Your task to perform on an android device: Search for hotels in Philadelphia Image 0: 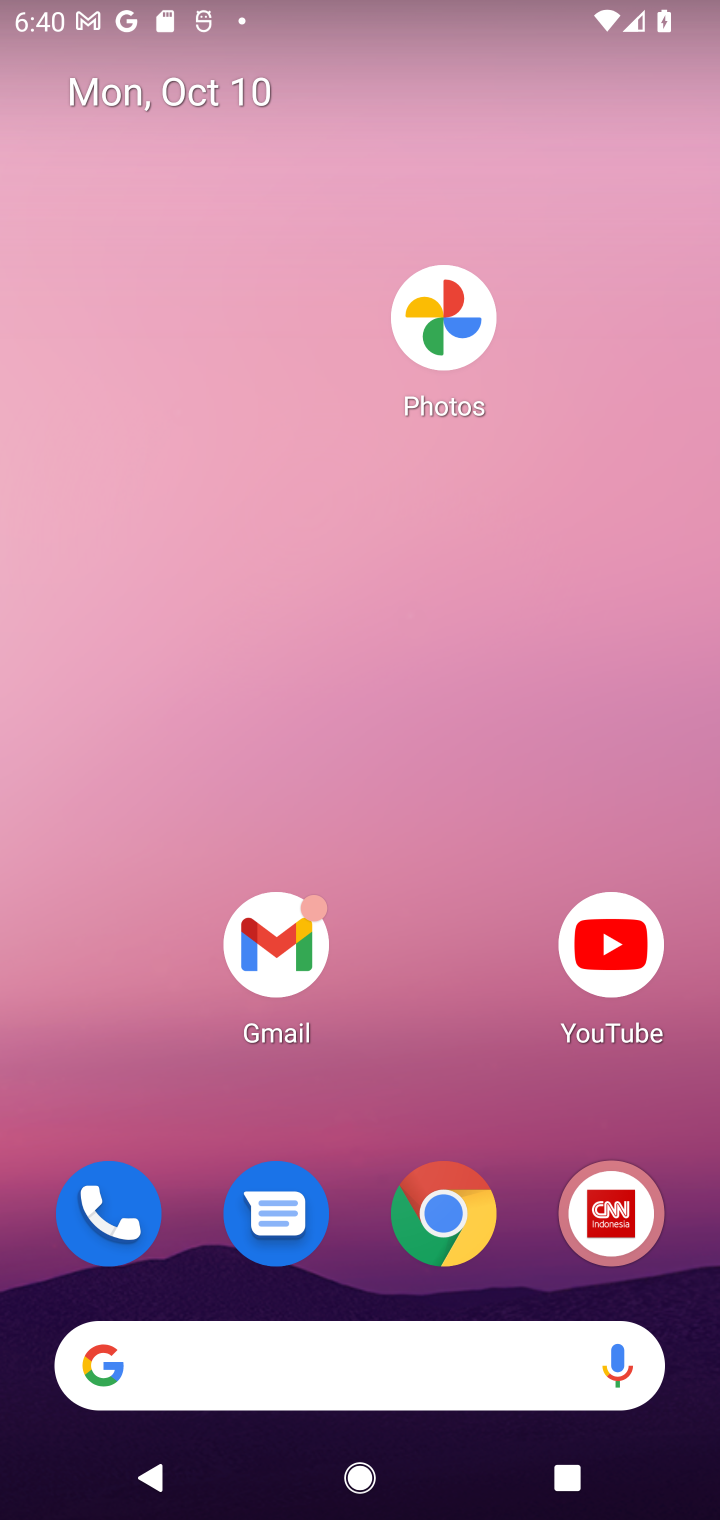
Step 0: click (407, 1351)
Your task to perform on an android device: Search for hotels in Philadelphia Image 1: 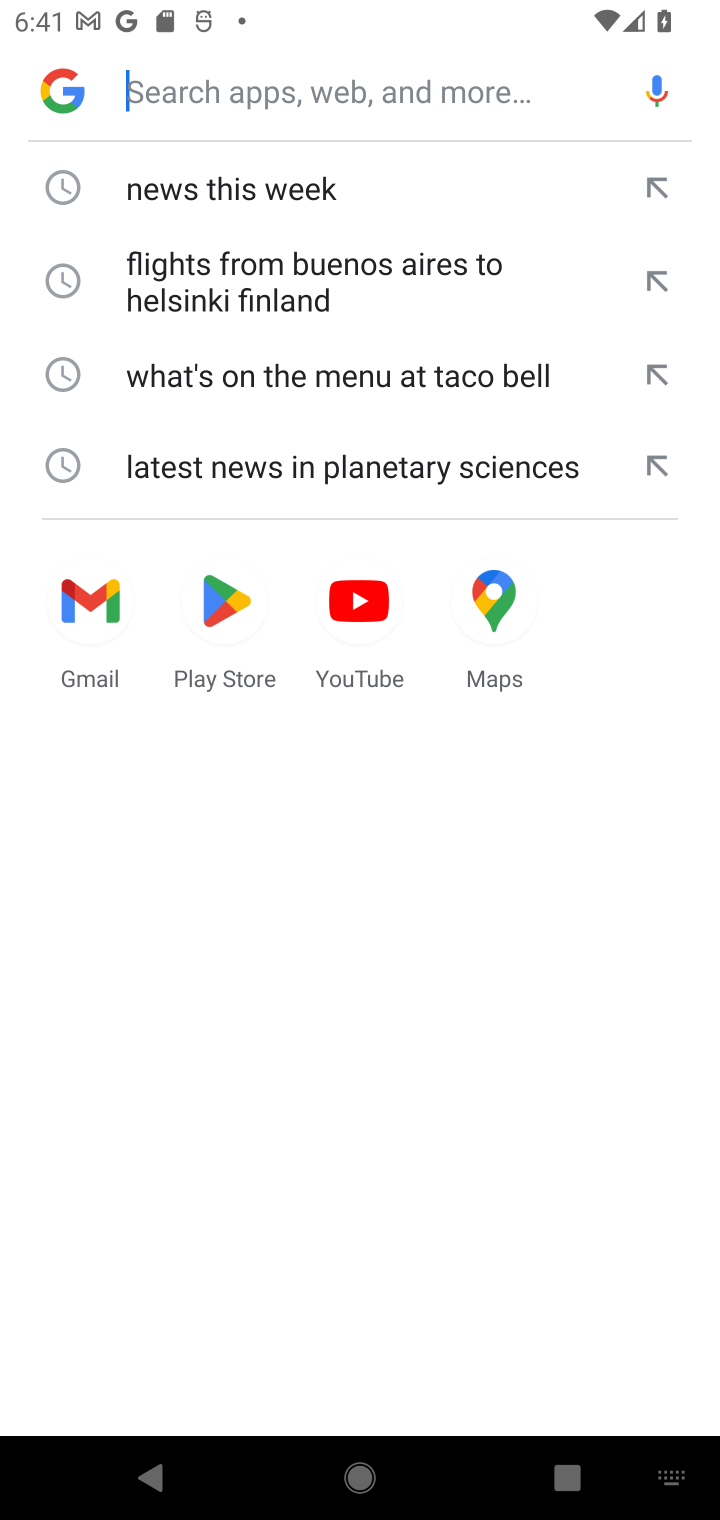
Step 1: type "hotels in Philadelphia"
Your task to perform on an android device: Search for hotels in Philadelphia Image 2: 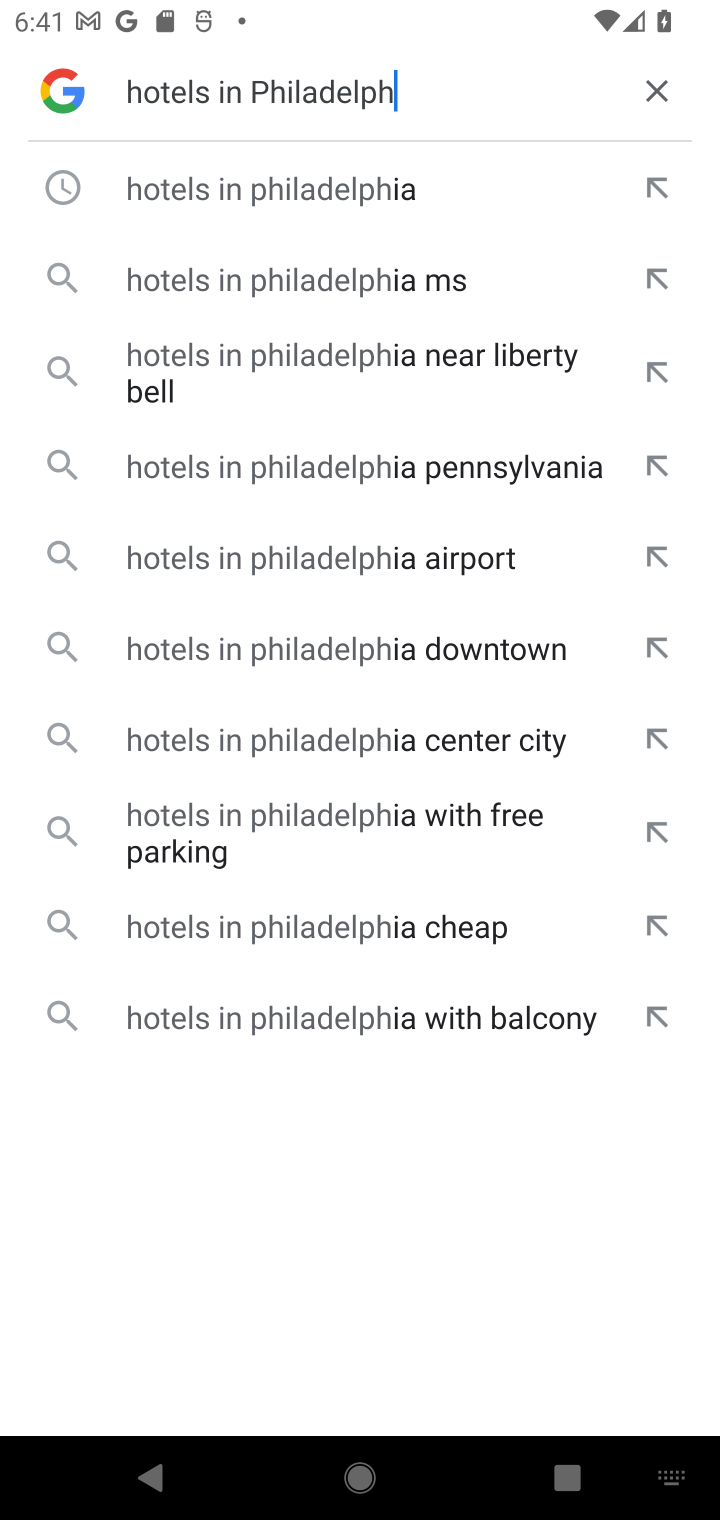
Step 2: type ""
Your task to perform on an android device: Search for hotels in Philadelphia Image 3: 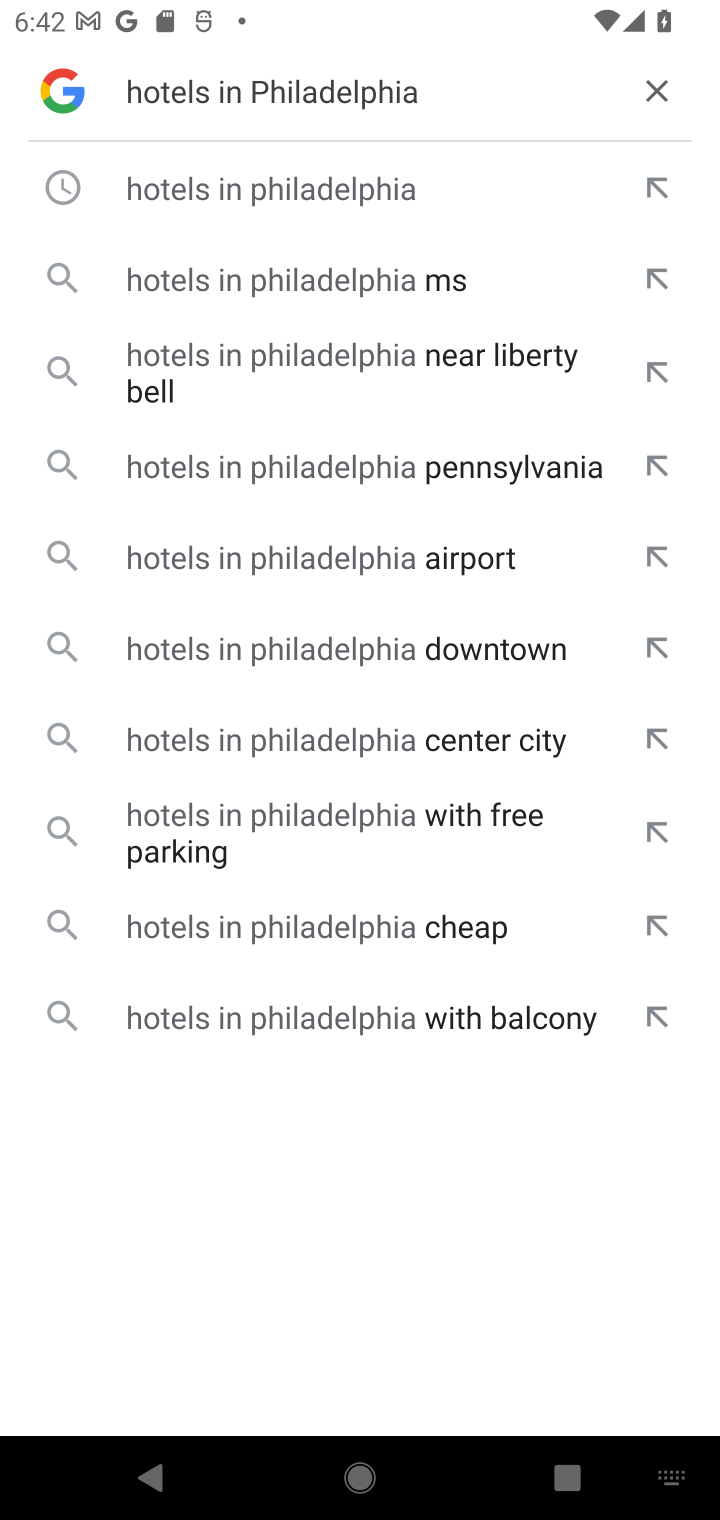
Step 3: click (321, 192)
Your task to perform on an android device: Search for hotels in Philadelphia Image 4: 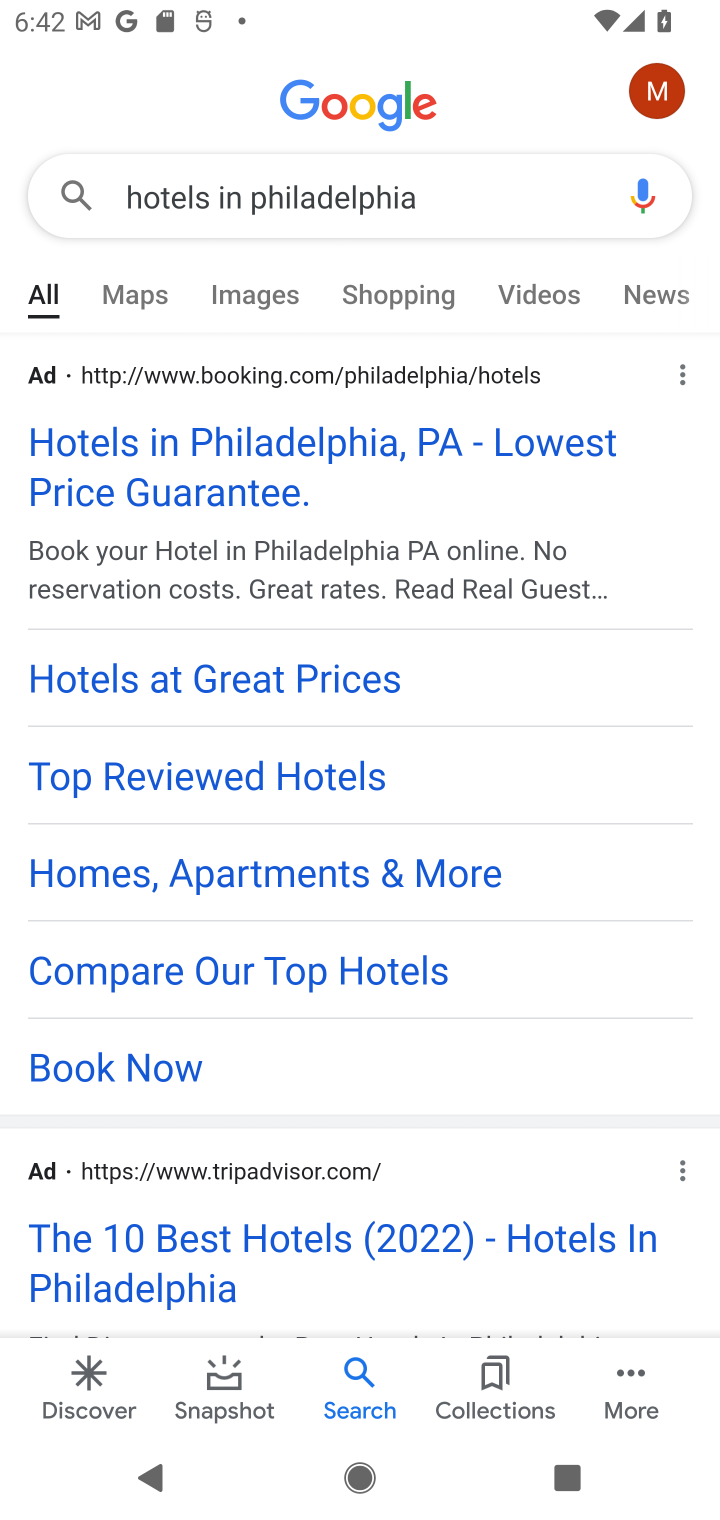
Step 4: task complete